Your task to perform on an android device: check android version Image 0: 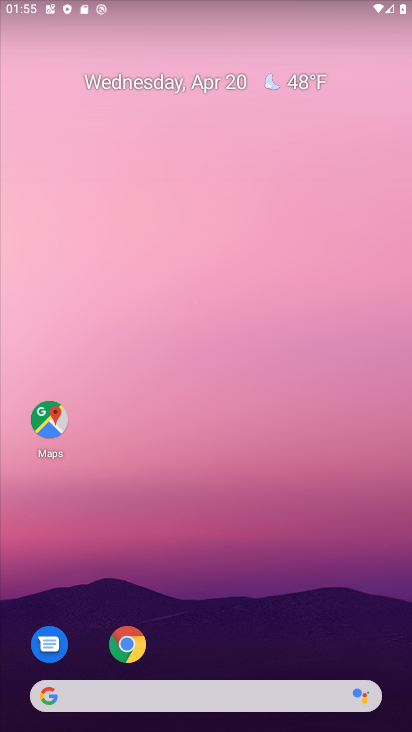
Step 0: drag from (222, 675) to (365, 89)
Your task to perform on an android device: check android version Image 1: 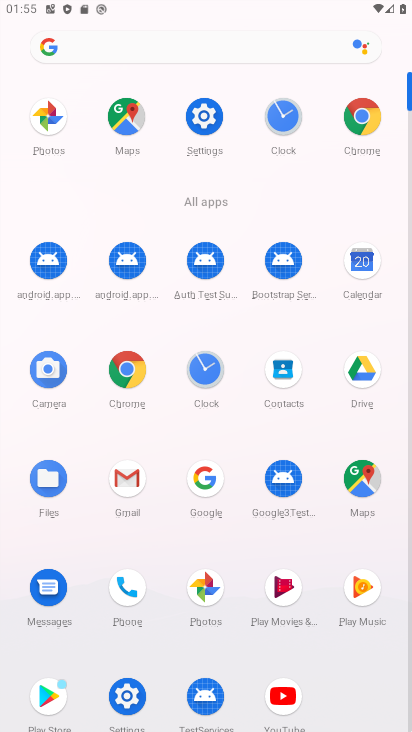
Step 1: drag from (208, 651) to (264, 478)
Your task to perform on an android device: check android version Image 2: 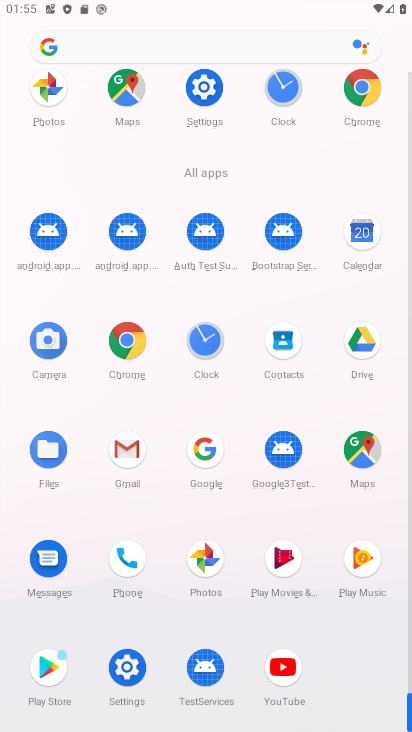
Step 2: click (117, 668)
Your task to perform on an android device: check android version Image 3: 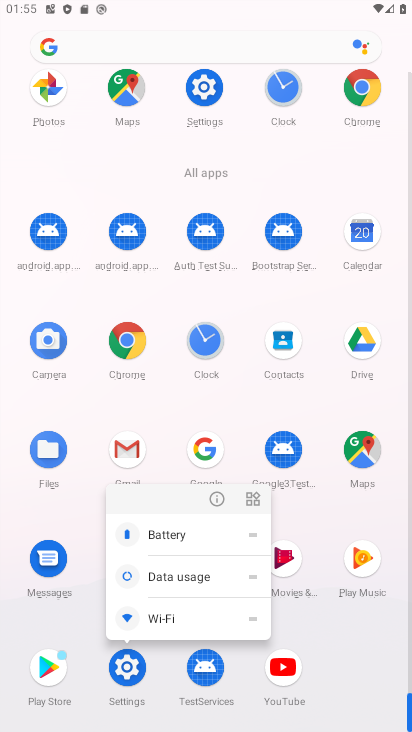
Step 3: click (119, 666)
Your task to perform on an android device: check android version Image 4: 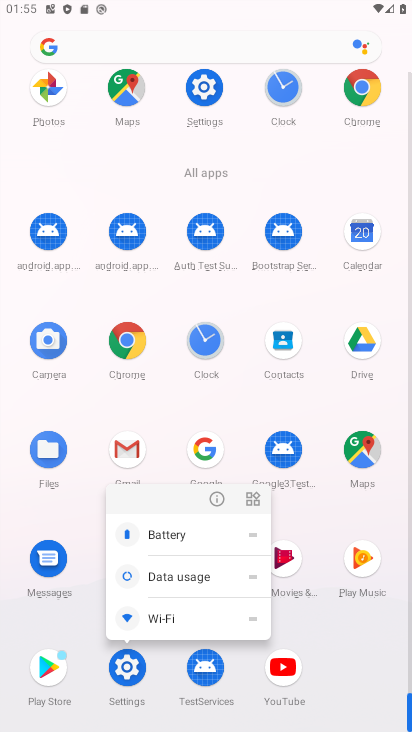
Step 4: click (121, 666)
Your task to perform on an android device: check android version Image 5: 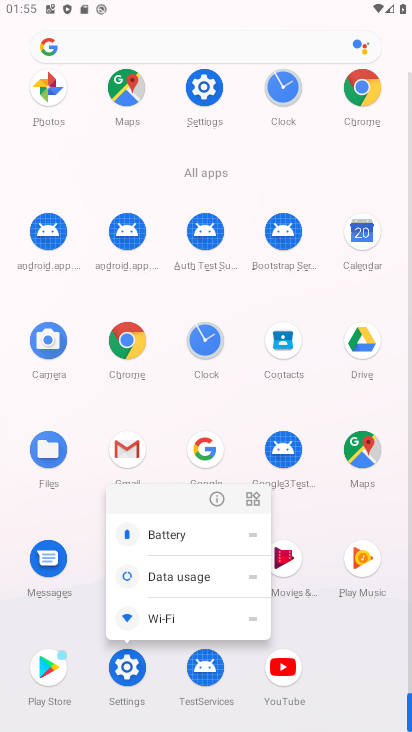
Step 5: click (121, 666)
Your task to perform on an android device: check android version Image 6: 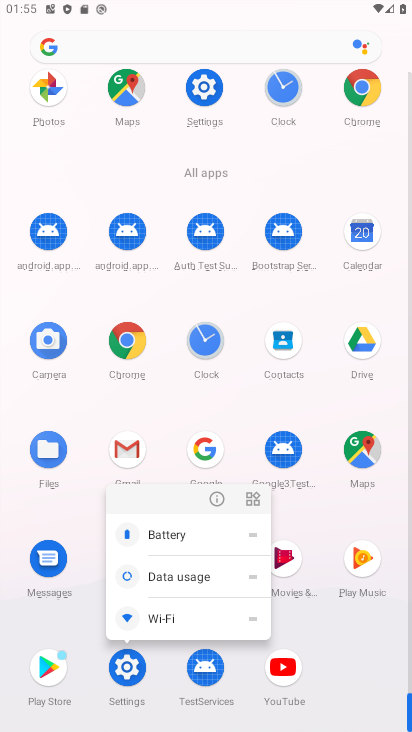
Step 6: click (121, 666)
Your task to perform on an android device: check android version Image 7: 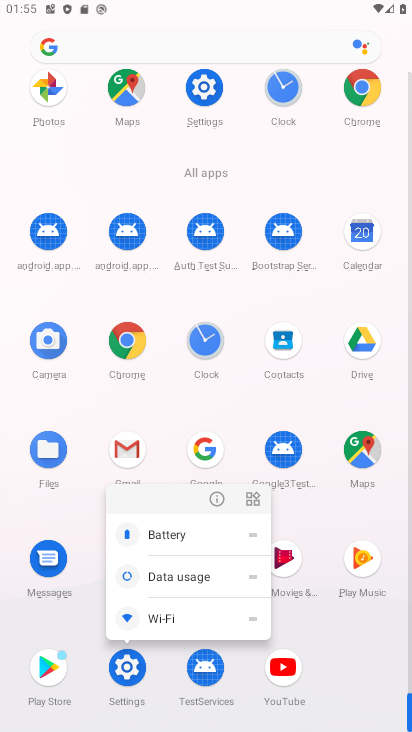
Step 7: click (120, 684)
Your task to perform on an android device: check android version Image 8: 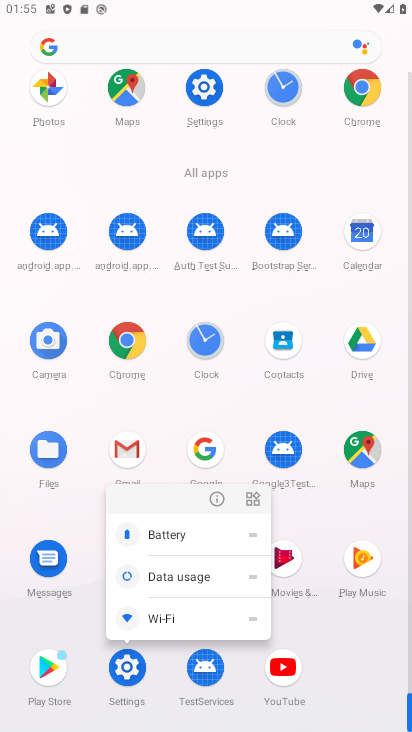
Step 8: click (122, 675)
Your task to perform on an android device: check android version Image 9: 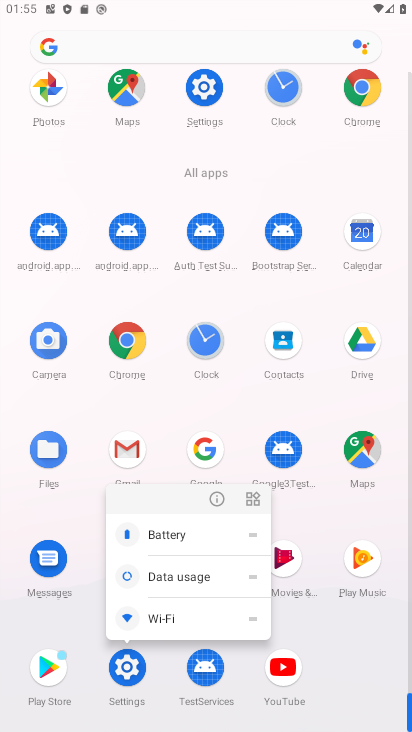
Step 9: click (139, 668)
Your task to perform on an android device: check android version Image 10: 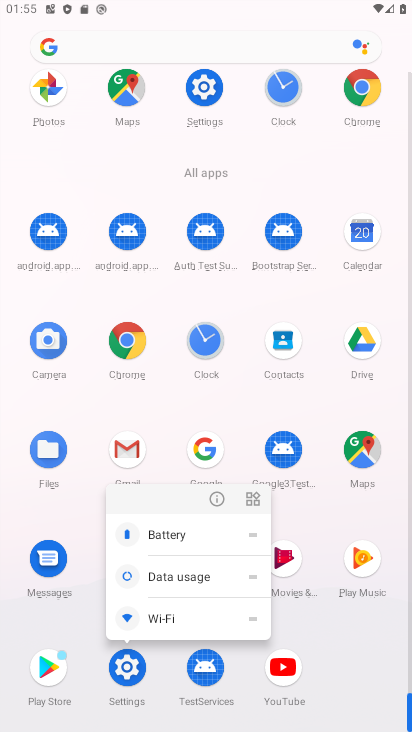
Step 10: click (139, 668)
Your task to perform on an android device: check android version Image 11: 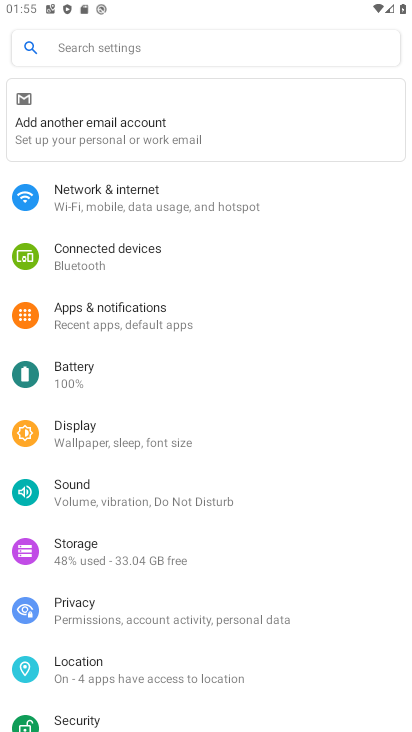
Step 11: drag from (198, 696) to (382, 73)
Your task to perform on an android device: check android version Image 12: 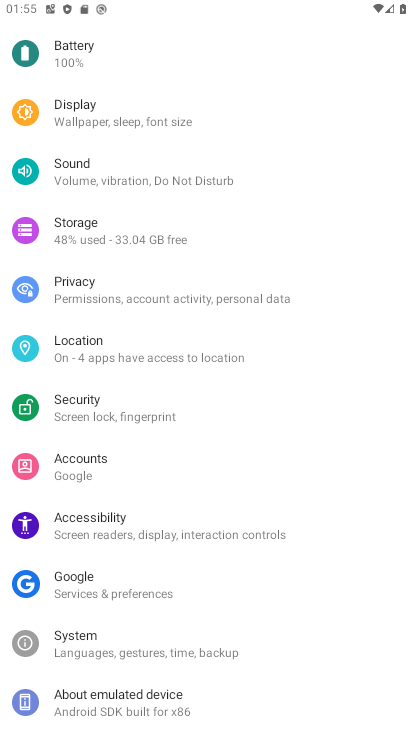
Step 12: drag from (217, 644) to (349, 201)
Your task to perform on an android device: check android version Image 13: 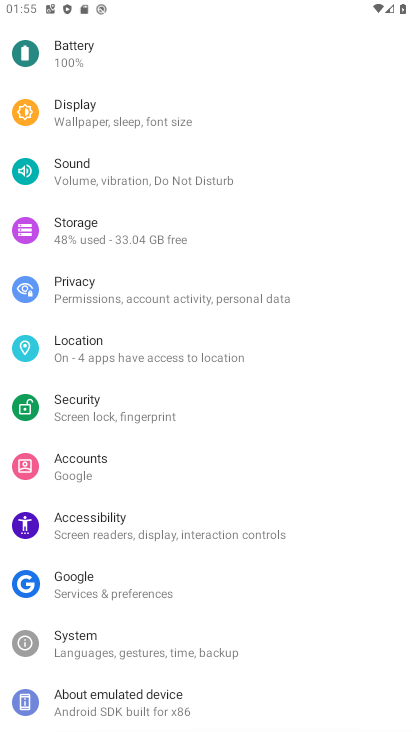
Step 13: click (149, 703)
Your task to perform on an android device: check android version Image 14: 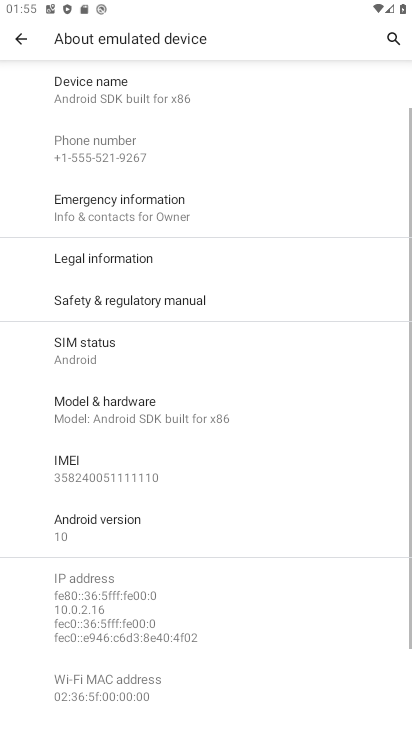
Step 14: click (136, 529)
Your task to perform on an android device: check android version Image 15: 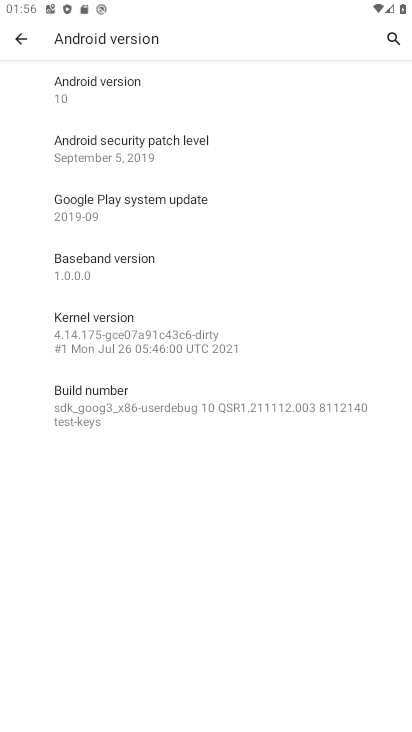
Step 15: task complete